Your task to perform on an android device: empty trash in the gmail app Image 0: 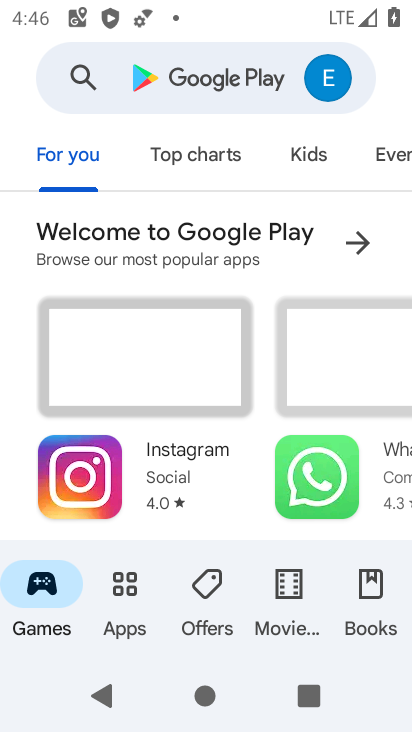
Step 0: press back button
Your task to perform on an android device: empty trash in the gmail app Image 1: 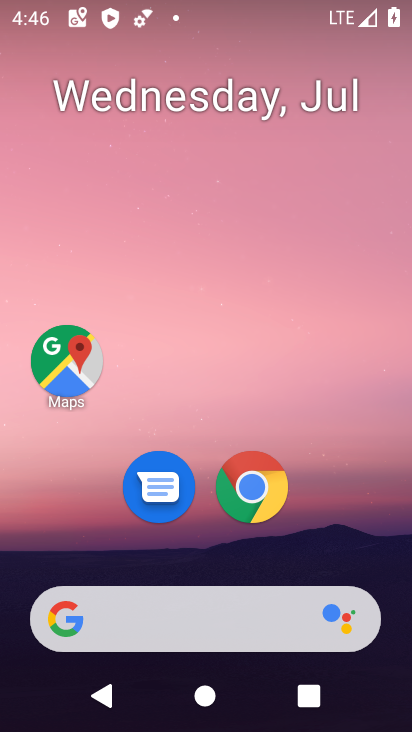
Step 1: drag from (67, 14) to (232, 6)
Your task to perform on an android device: empty trash in the gmail app Image 2: 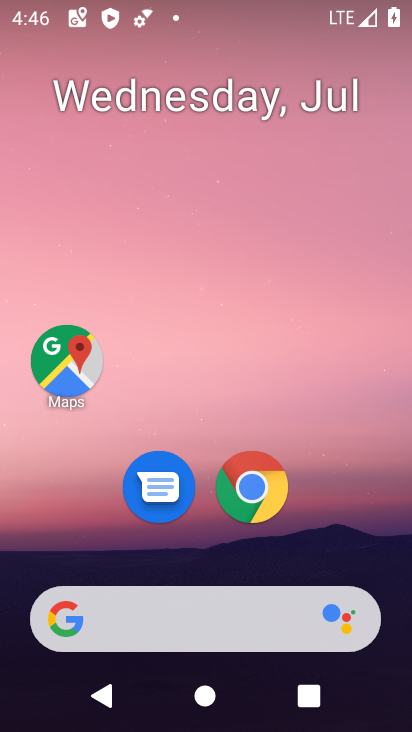
Step 2: drag from (100, 469) to (192, 21)
Your task to perform on an android device: empty trash in the gmail app Image 3: 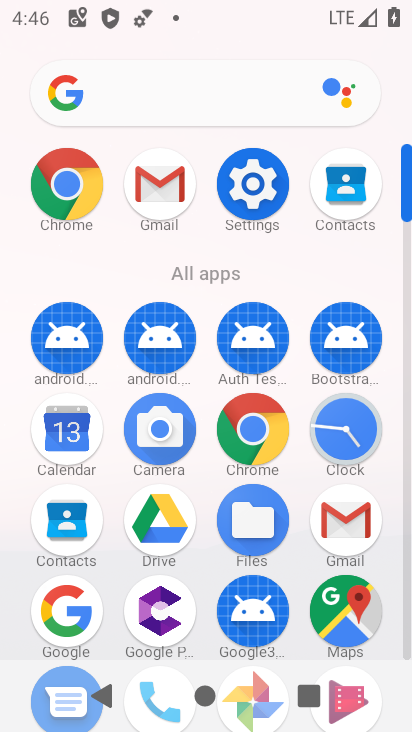
Step 3: click (163, 169)
Your task to perform on an android device: empty trash in the gmail app Image 4: 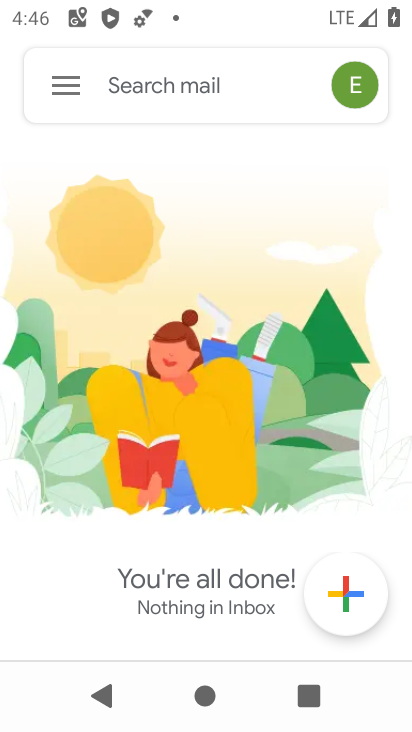
Step 4: click (59, 81)
Your task to perform on an android device: empty trash in the gmail app Image 5: 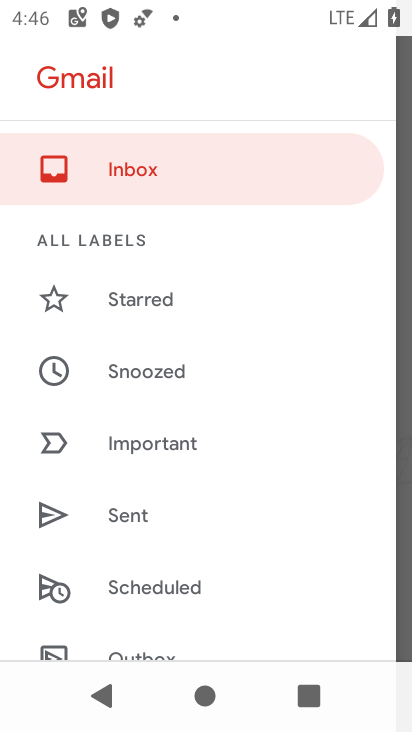
Step 5: drag from (156, 622) to (283, 101)
Your task to perform on an android device: empty trash in the gmail app Image 6: 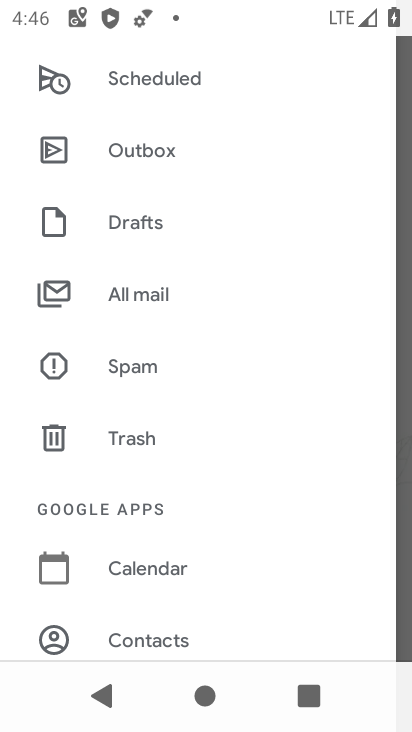
Step 6: click (137, 434)
Your task to perform on an android device: empty trash in the gmail app Image 7: 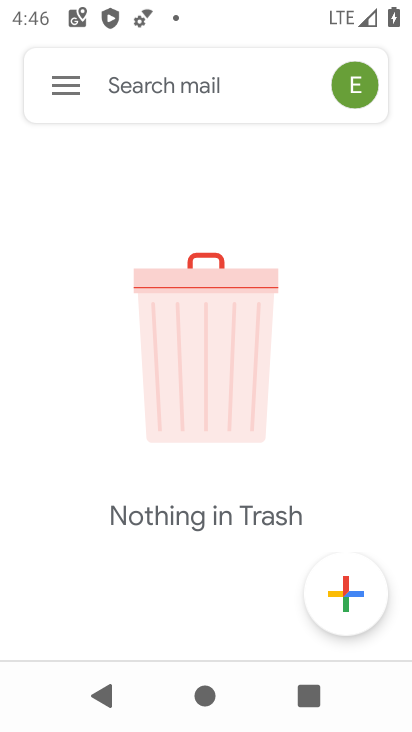
Step 7: task complete